Your task to perform on an android device: Set the phone to "Do not disturb". Image 0: 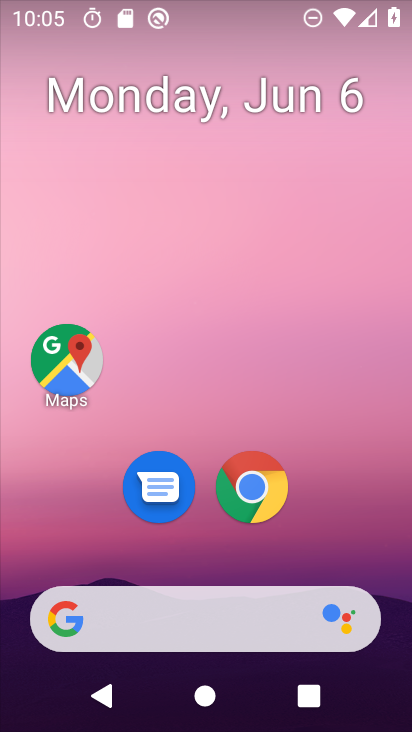
Step 0: drag from (397, 620) to (315, 106)
Your task to perform on an android device: Set the phone to "Do not disturb". Image 1: 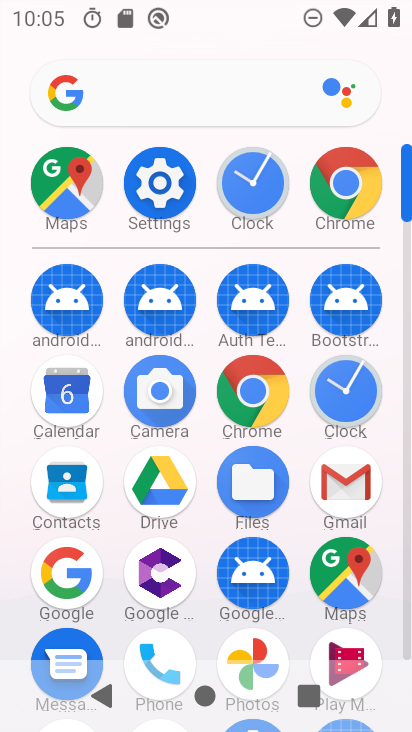
Step 1: task complete